Your task to perform on an android device: Open accessibility settings Image 0: 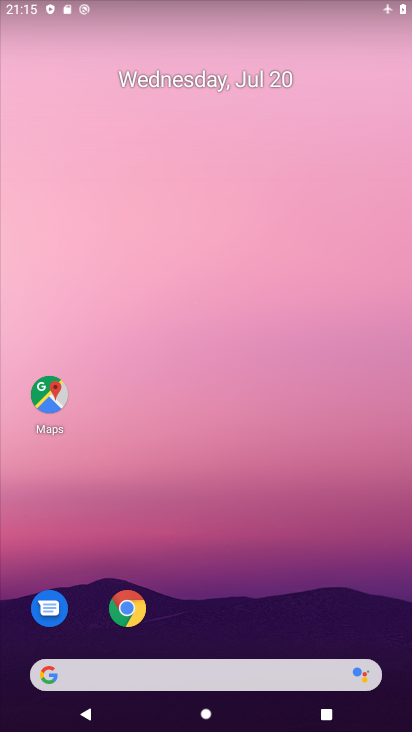
Step 0: drag from (252, 655) to (201, 113)
Your task to perform on an android device: Open accessibility settings Image 1: 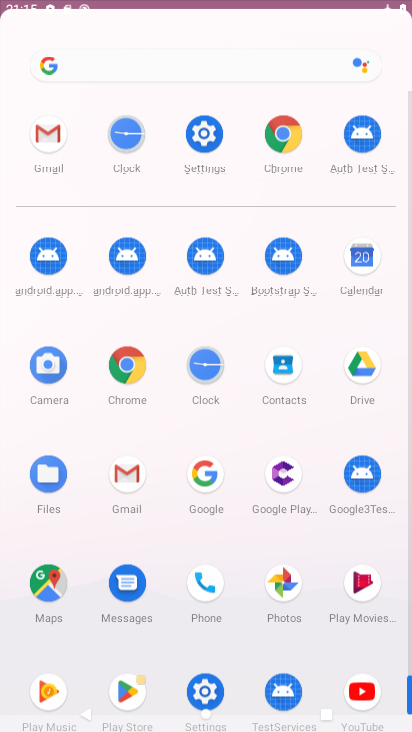
Step 1: drag from (235, 539) to (210, 101)
Your task to perform on an android device: Open accessibility settings Image 2: 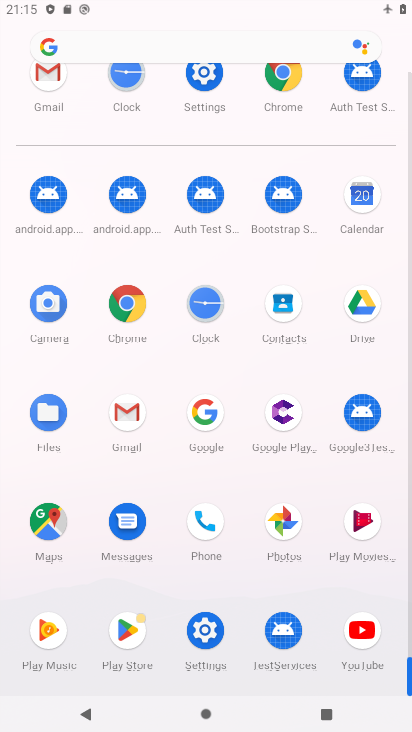
Step 2: click (211, 67)
Your task to perform on an android device: Open accessibility settings Image 3: 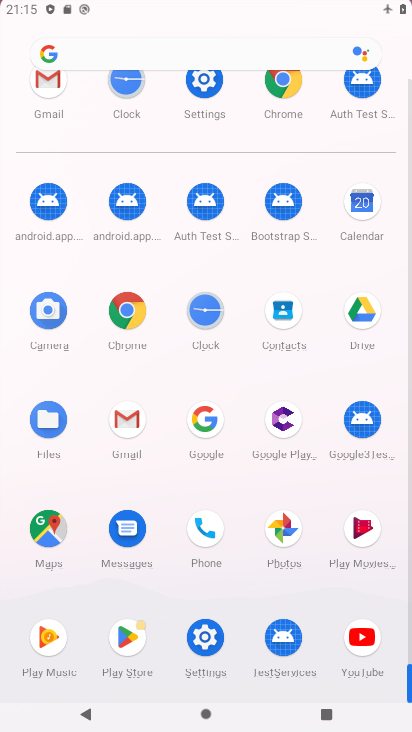
Step 3: click (201, 80)
Your task to perform on an android device: Open accessibility settings Image 4: 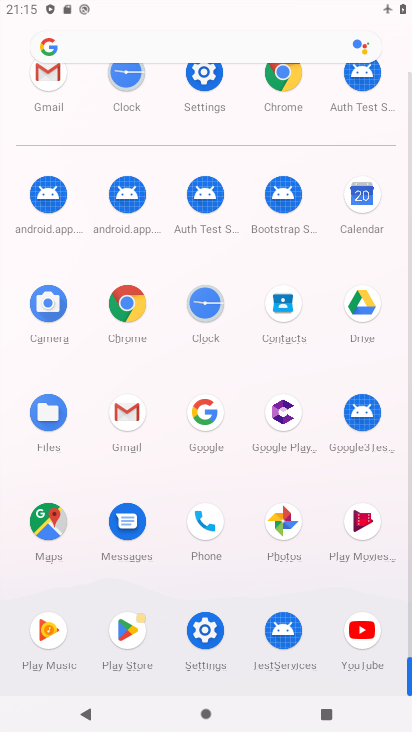
Step 4: click (201, 80)
Your task to perform on an android device: Open accessibility settings Image 5: 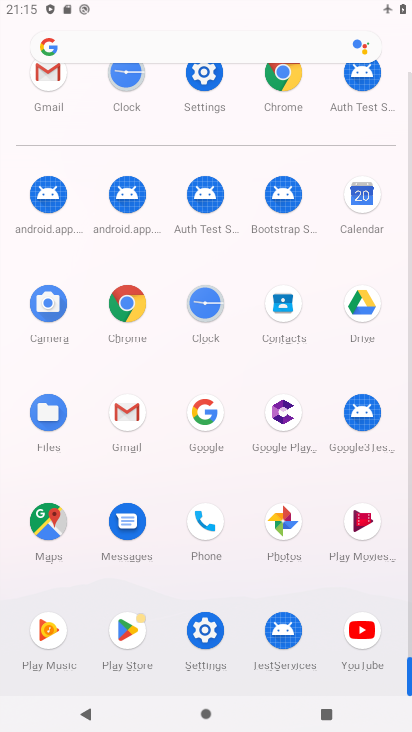
Step 5: click (201, 80)
Your task to perform on an android device: Open accessibility settings Image 6: 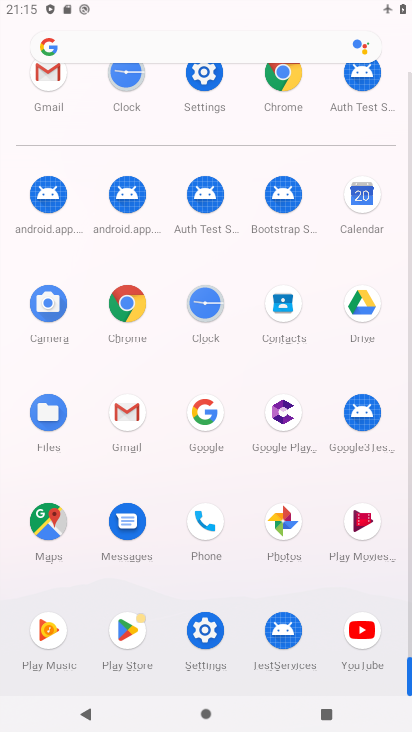
Step 6: click (204, 82)
Your task to perform on an android device: Open accessibility settings Image 7: 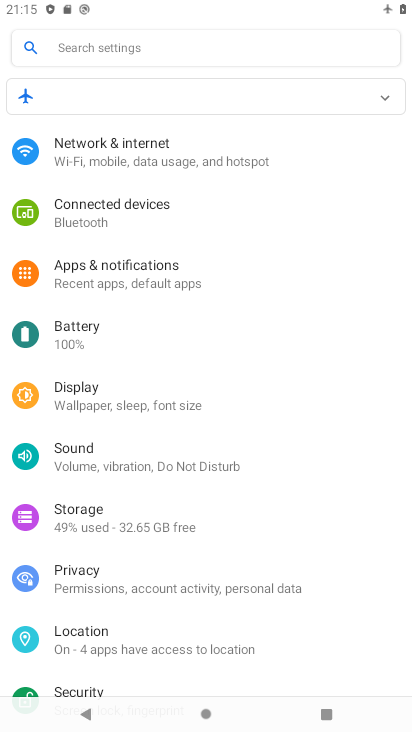
Step 7: drag from (185, 476) to (156, 246)
Your task to perform on an android device: Open accessibility settings Image 8: 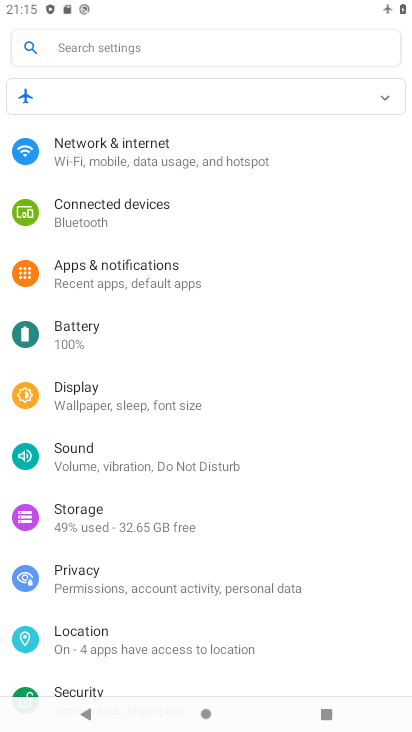
Step 8: drag from (173, 537) to (139, 255)
Your task to perform on an android device: Open accessibility settings Image 9: 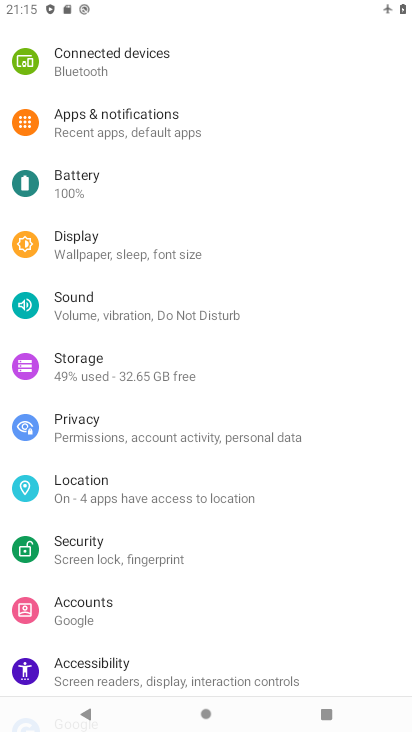
Step 9: drag from (96, 669) to (111, 391)
Your task to perform on an android device: Open accessibility settings Image 10: 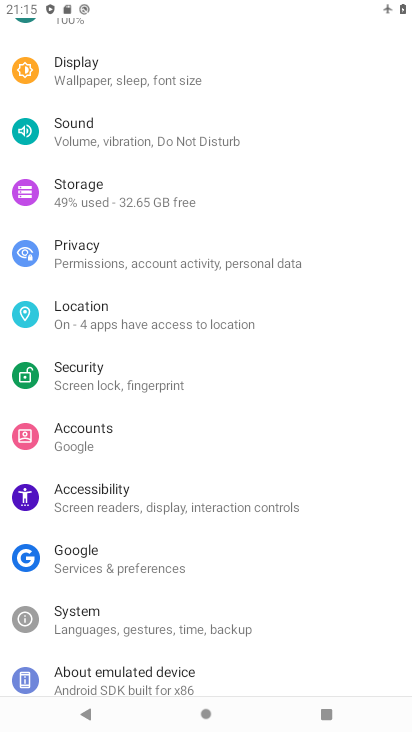
Step 10: drag from (181, 533) to (177, 319)
Your task to perform on an android device: Open accessibility settings Image 11: 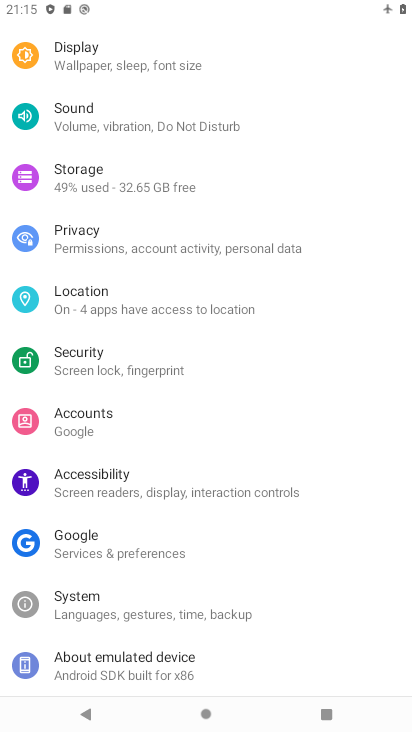
Step 11: click (79, 487)
Your task to perform on an android device: Open accessibility settings Image 12: 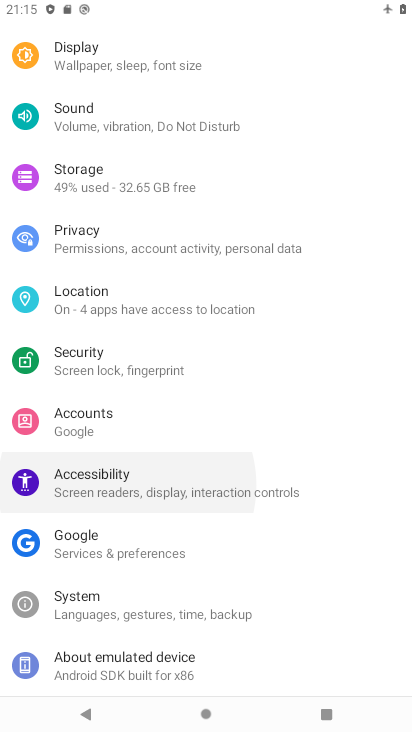
Step 12: click (82, 480)
Your task to perform on an android device: Open accessibility settings Image 13: 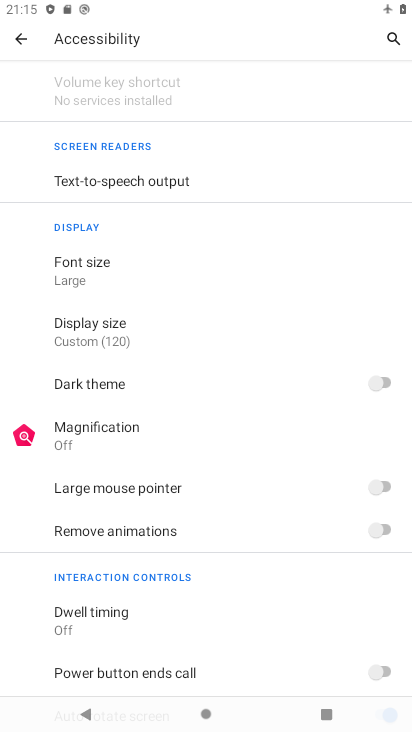
Step 13: task complete